Your task to perform on an android device: Search for the best Mexican restaurants Image 0: 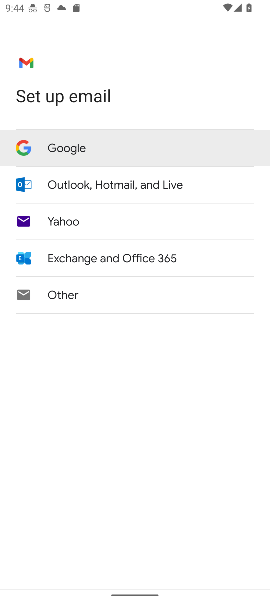
Step 0: press home button
Your task to perform on an android device: Search for the best Mexican restaurants Image 1: 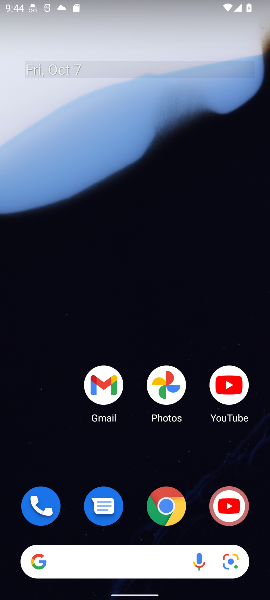
Step 1: drag from (127, 553) to (194, 89)
Your task to perform on an android device: Search for the best Mexican restaurants Image 2: 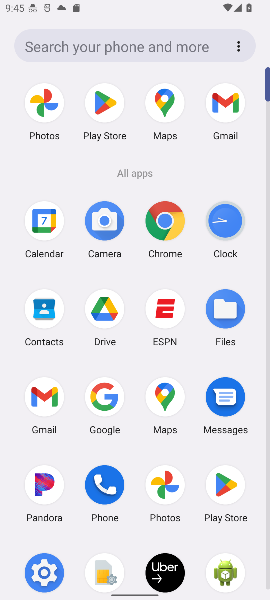
Step 2: click (160, 107)
Your task to perform on an android device: Search for the best Mexican restaurants Image 3: 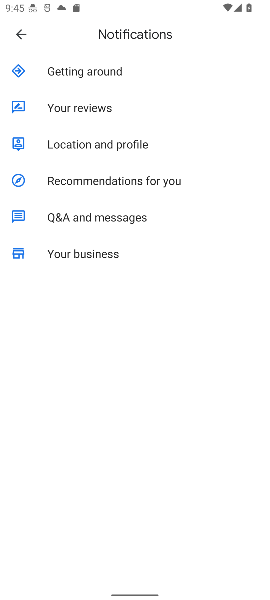
Step 3: click (22, 33)
Your task to perform on an android device: Search for the best Mexican restaurants Image 4: 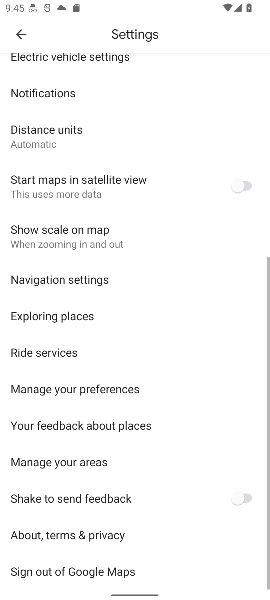
Step 4: press back button
Your task to perform on an android device: Search for the best Mexican restaurants Image 5: 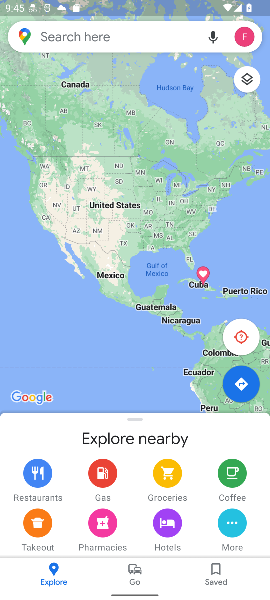
Step 5: click (120, 38)
Your task to perform on an android device: Search for the best Mexican restaurants Image 6: 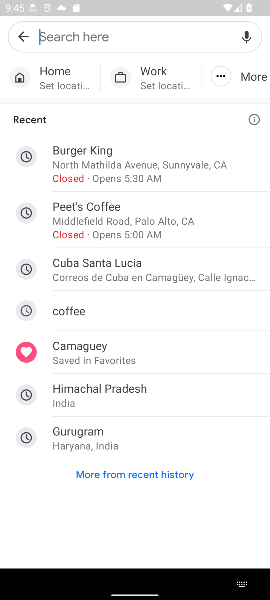
Step 6: type " Mexican restaurants"
Your task to perform on an android device: Search for the best Mexican restaurants Image 7: 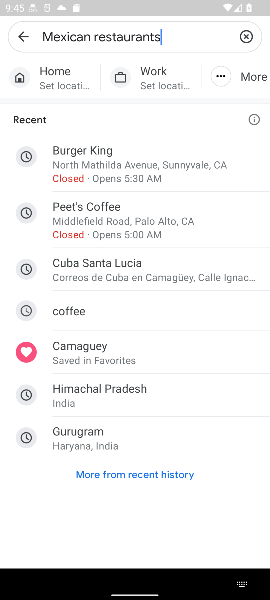
Step 7: press enter
Your task to perform on an android device: Search for the best Mexican restaurants Image 8: 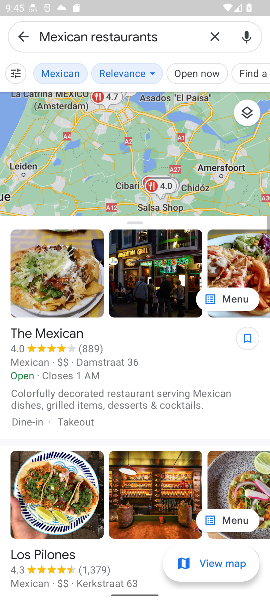
Step 8: task complete